Your task to perform on an android device: Go to notification settings Image 0: 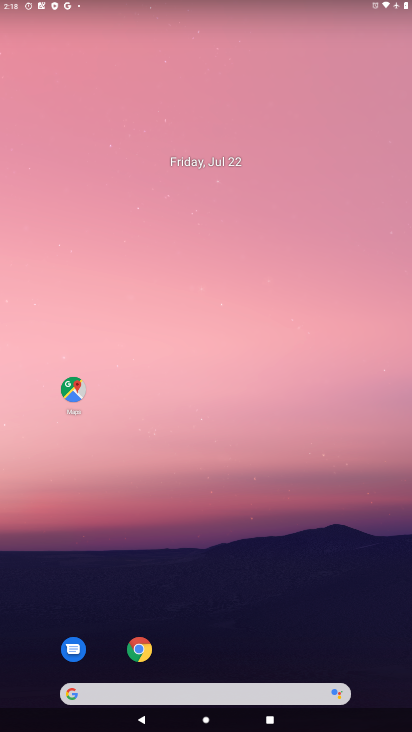
Step 0: drag from (343, 618) to (291, 45)
Your task to perform on an android device: Go to notification settings Image 1: 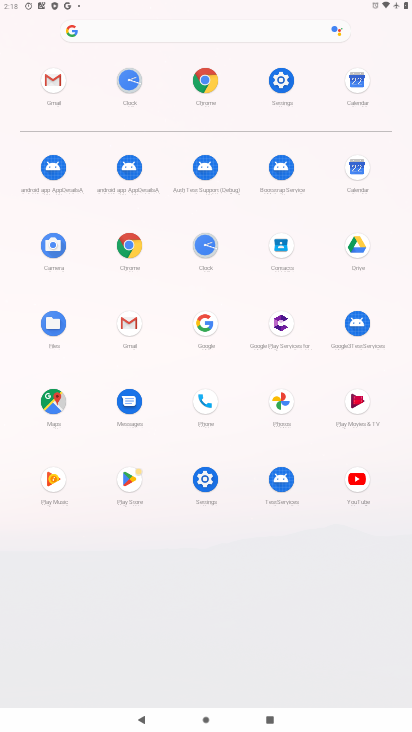
Step 1: click (279, 84)
Your task to perform on an android device: Go to notification settings Image 2: 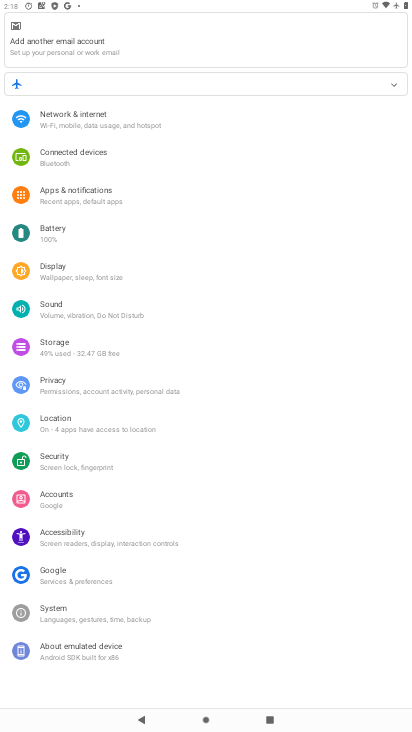
Step 2: click (102, 193)
Your task to perform on an android device: Go to notification settings Image 3: 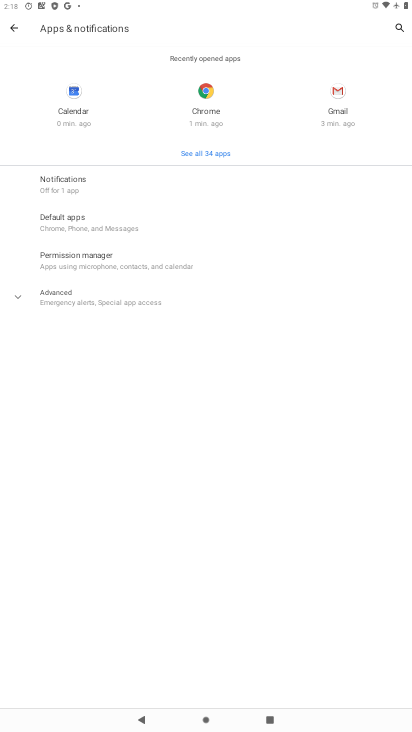
Step 3: click (89, 184)
Your task to perform on an android device: Go to notification settings Image 4: 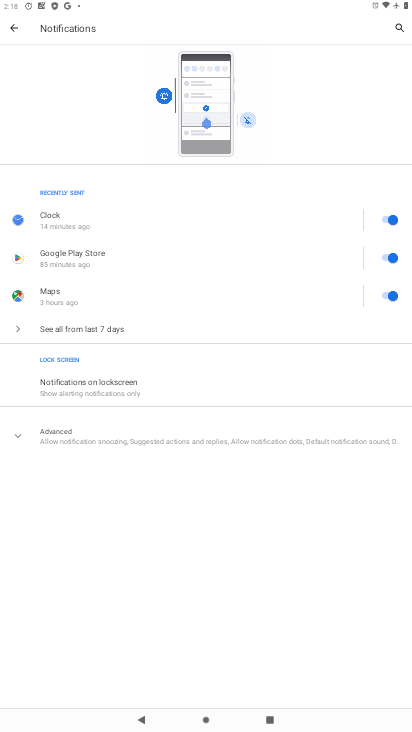
Step 4: task complete